Your task to perform on an android device: Search for sushi restaurants on Maps Image 0: 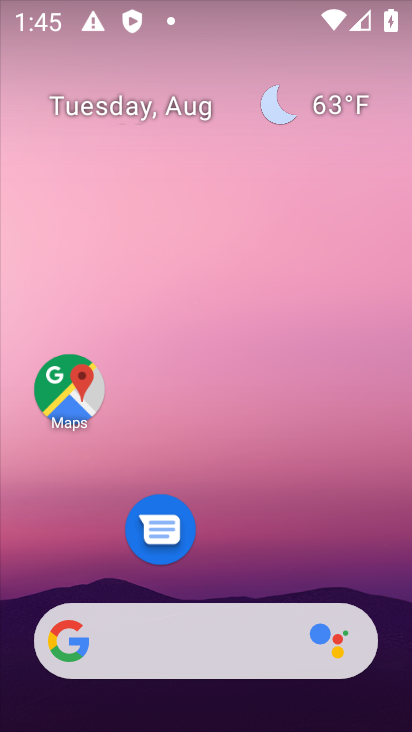
Step 0: click (82, 387)
Your task to perform on an android device: Search for sushi restaurants on Maps Image 1: 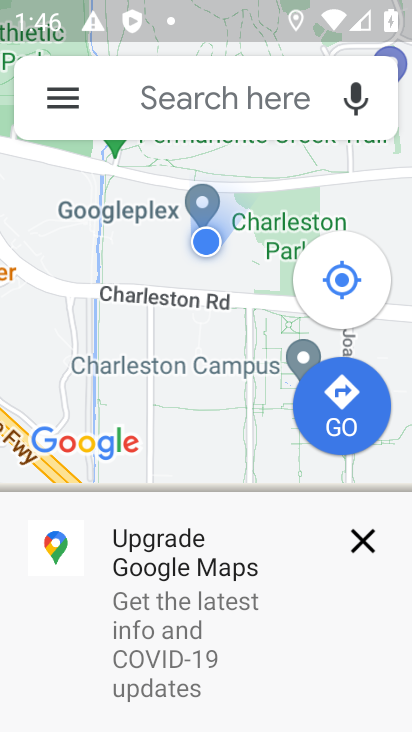
Step 1: click (260, 121)
Your task to perform on an android device: Search for sushi restaurants on Maps Image 2: 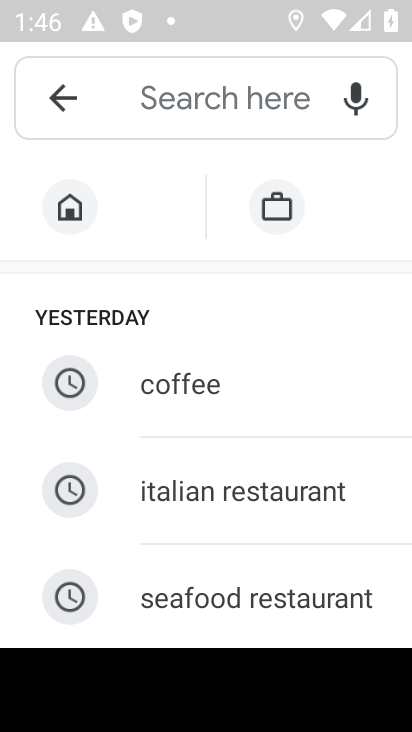
Step 2: drag from (247, 585) to (235, 387)
Your task to perform on an android device: Search for sushi restaurants on Maps Image 3: 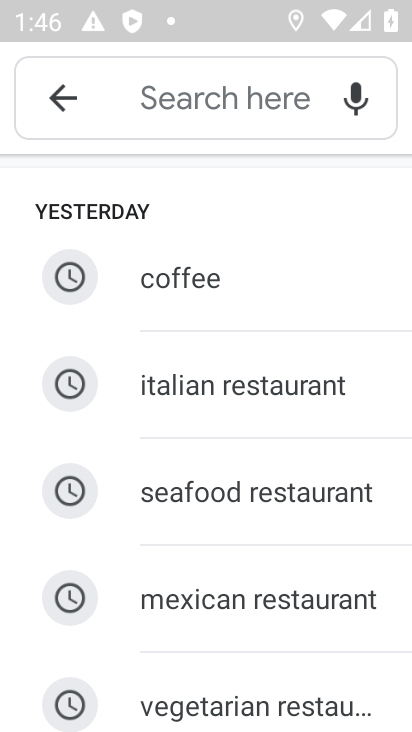
Step 3: drag from (241, 622) to (242, 349)
Your task to perform on an android device: Search for sushi restaurants on Maps Image 4: 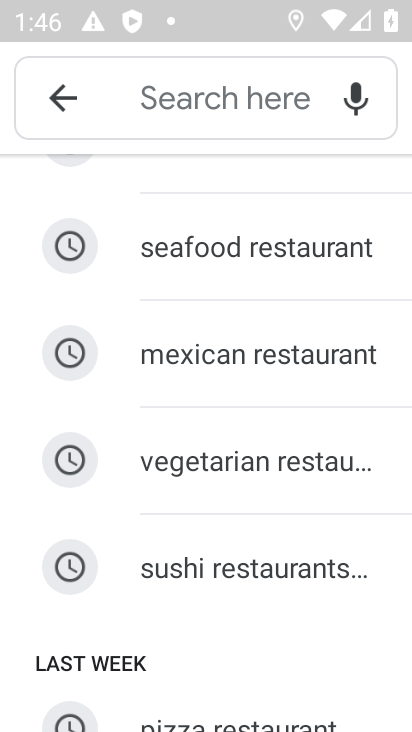
Step 4: click (241, 591)
Your task to perform on an android device: Search for sushi restaurants on Maps Image 5: 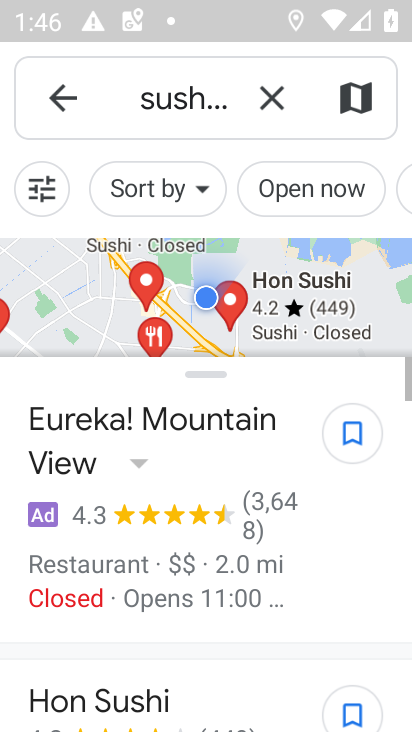
Step 5: task complete